Your task to perform on an android device: remove spam from my inbox in the gmail app Image 0: 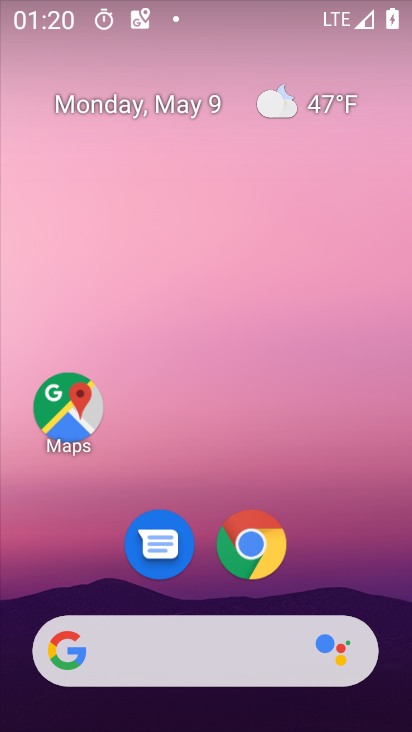
Step 0: drag from (352, 607) to (340, 12)
Your task to perform on an android device: remove spam from my inbox in the gmail app Image 1: 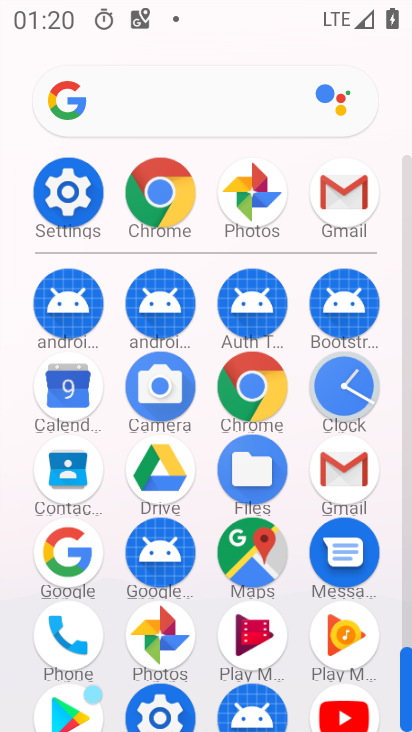
Step 1: click (342, 469)
Your task to perform on an android device: remove spam from my inbox in the gmail app Image 2: 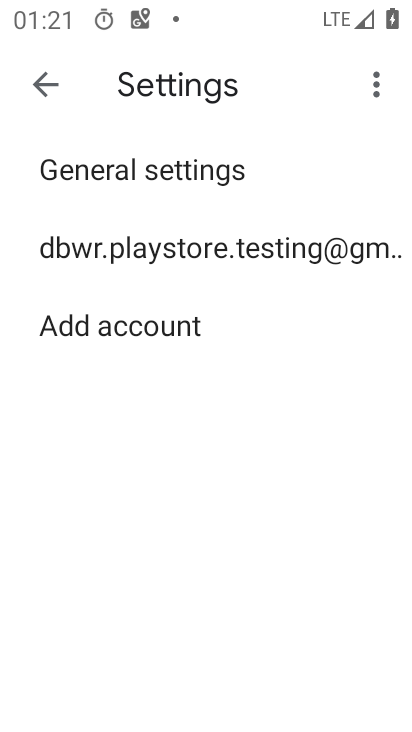
Step 2: press back button
Your task to perform on an android device: remove spam from my inbox in the gmail app Image 3: 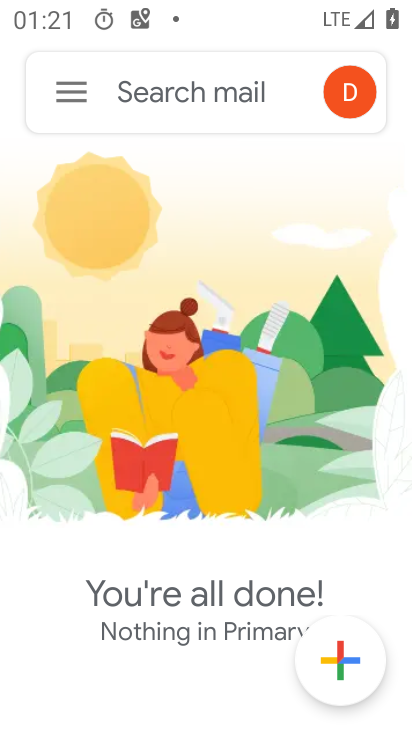
Step 3: click (67, 94)
Your task to perform on an android device: remove spam from my inbox in the gmail app Image 4: 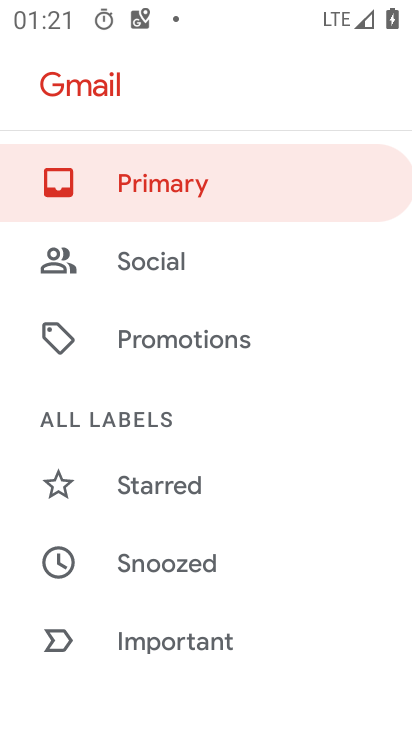
Step 4: drag from (245, 608) to (287, 4)
Your task to perform on an android device: remove spam from my inbox in the gmail app Image 5: 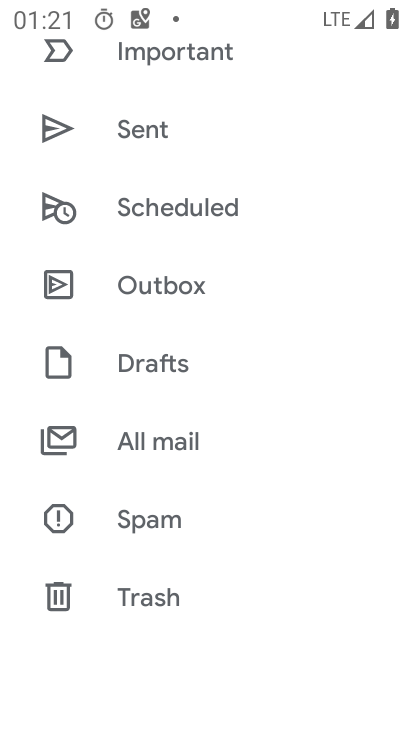
Step 5: click (215, 525)
Your task to perform on an android device: remove spam from my inbox in the gmail app Image 6: 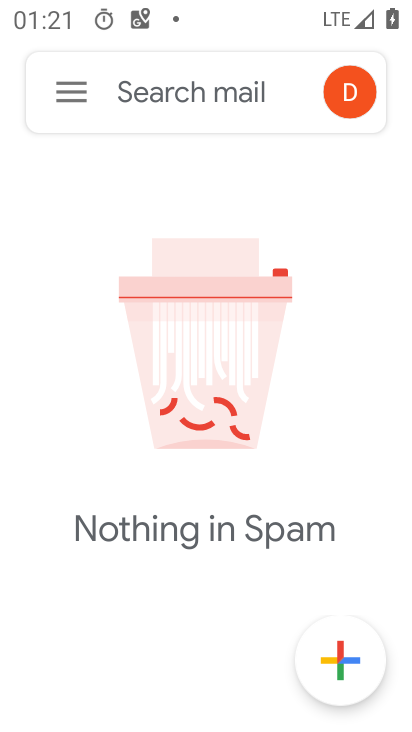
Step 6: task complete